Your task to perform on an android device: add a contact in the contacts app Image 0: 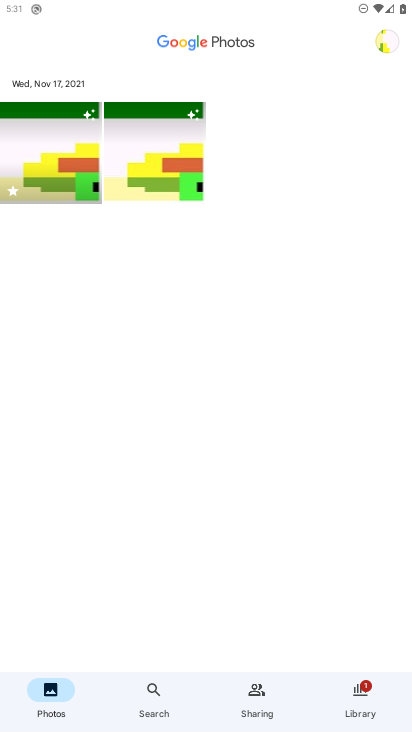
Step 0: press home button
Your task to perform on an android device: add a contact in the contacts app Image 1: 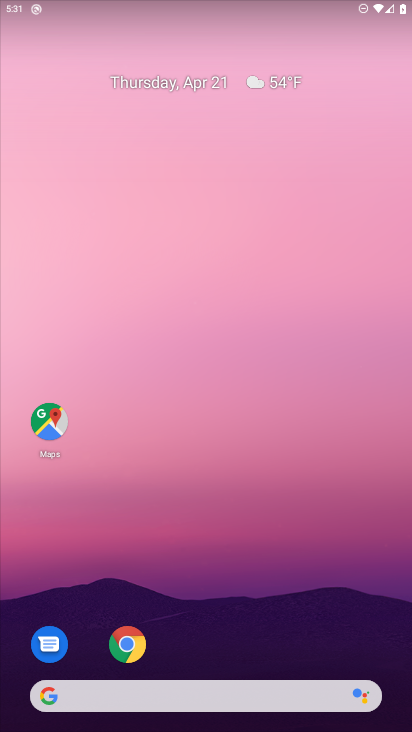
Step 1: drag from (151, 660) to (248, 300)
Your task to perform on an android device: add a contact in the contacts app Image 2: 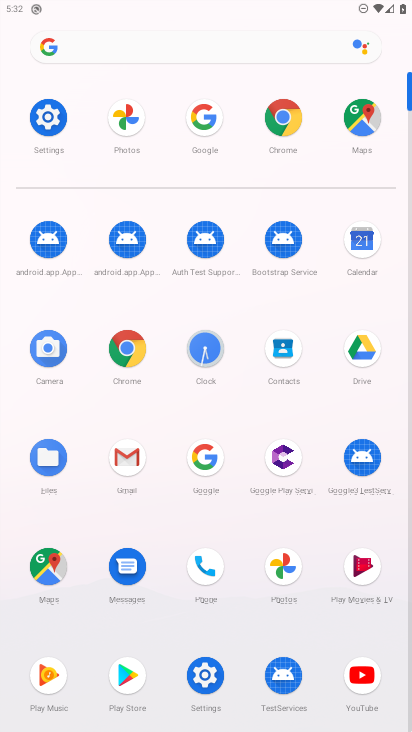
Step 2: click (289, 351)
Your task to perform on an android device: add a contact in the contacts app Image 3: 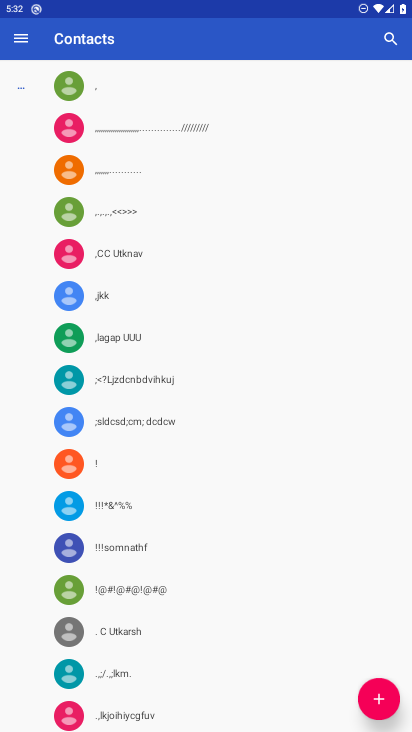
Step 3: click (379, 693)
Your task to perform on an android device: add a contact in the contacts app Image 4: 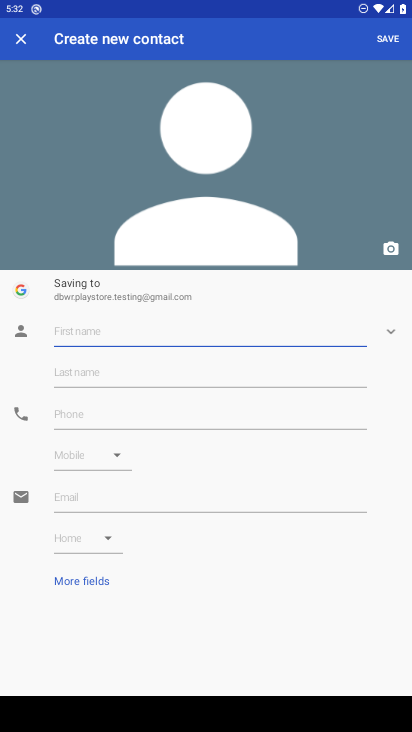
Step 4: type "helly"
Your task to perform on an android device: add a contact in the contacts app Image 5: 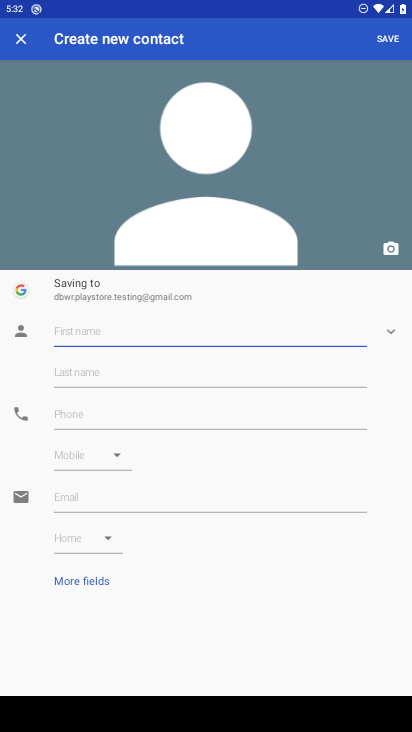
Step 5: click (67, 373)
Your task to perform on an android device: add a contact in the contacts app Image 6: 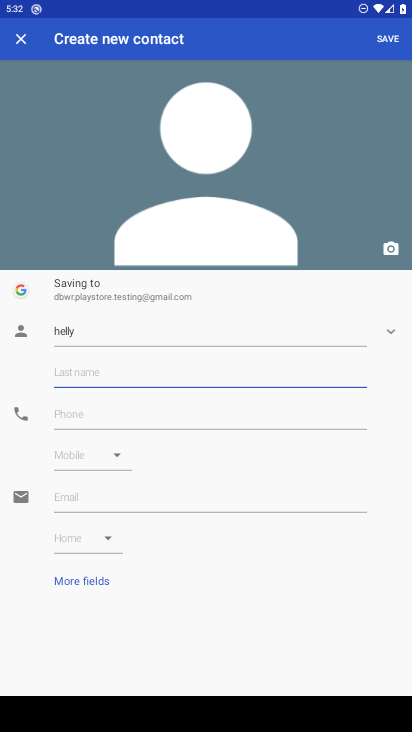
Step 6: type "shah"
Your task to perform on an android device: add a contact in the contacts app Image 7: 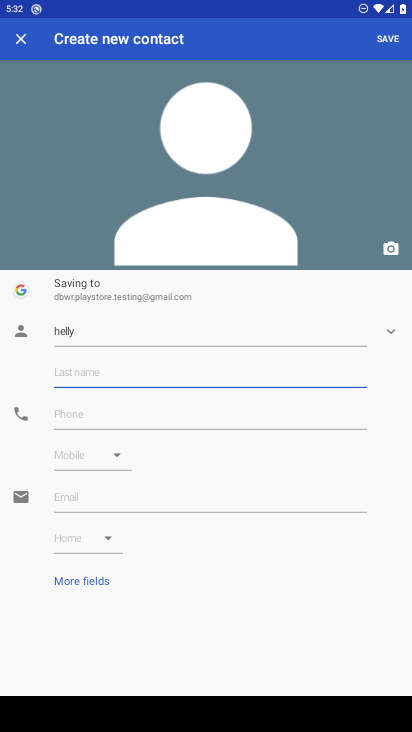
Step 7: click (68, 423)
Your task to perform on an android device: add a contact in the contacts app Image 8: 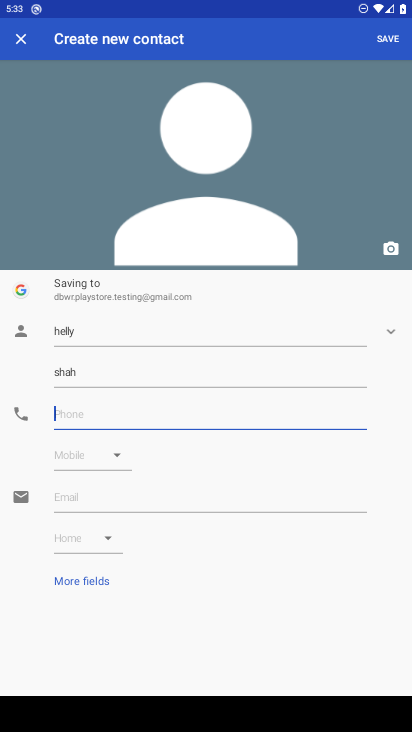
Step 8: type "7898765434"
Your task to perform on an android device: add a contact in the contacts app Image 9: 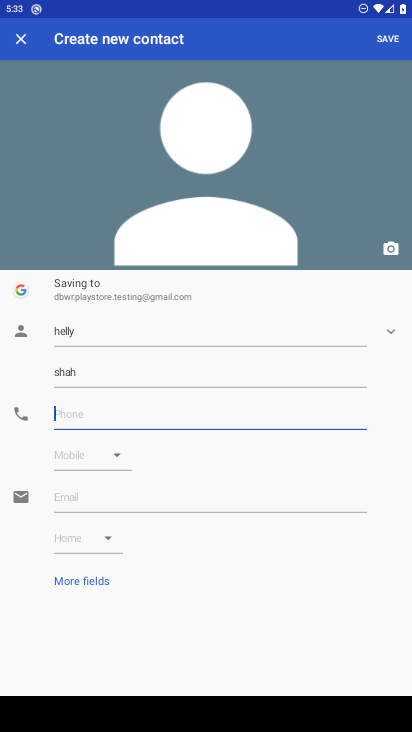
Step 9: click (389, 42)
Your task to perform on an android device: add a contact in the contacts app Image 10: 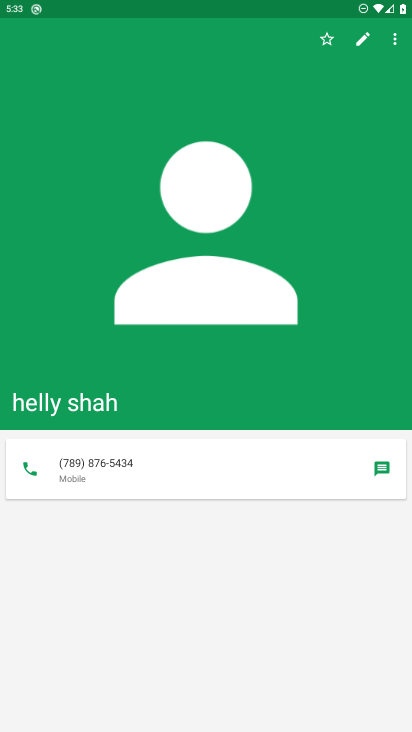
Step 10: task complete